Your task to perform on an android device: toggle notification dots Image 0: 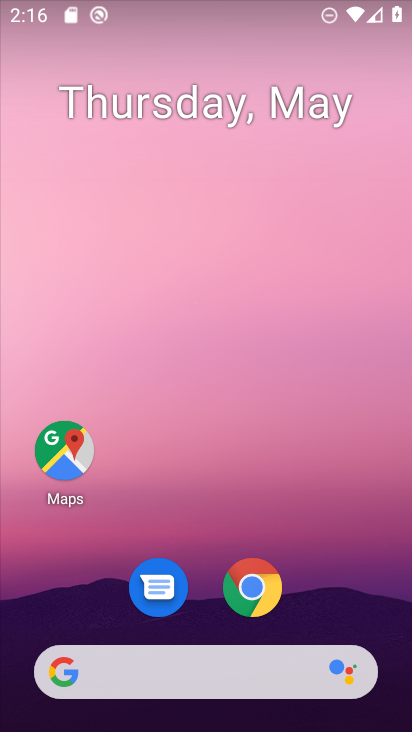
Step 0: drag from (331, 568) to (328, 145)
Your task to perform on an android device: toggle notification dots Image 1: 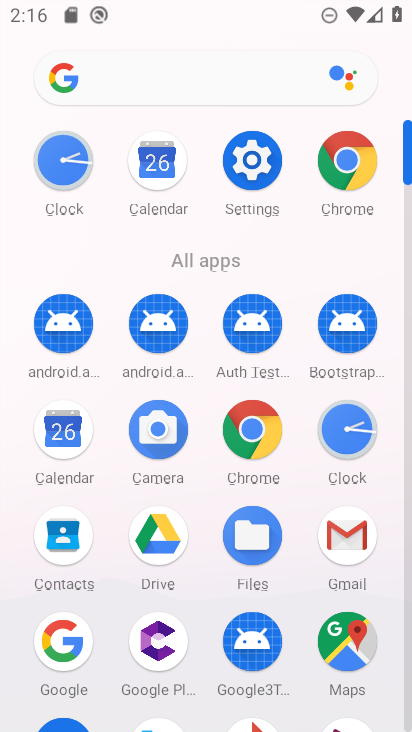
Step 1: click (260, 147)
Your task to perform on an android device: toggle notification dots Image 2: 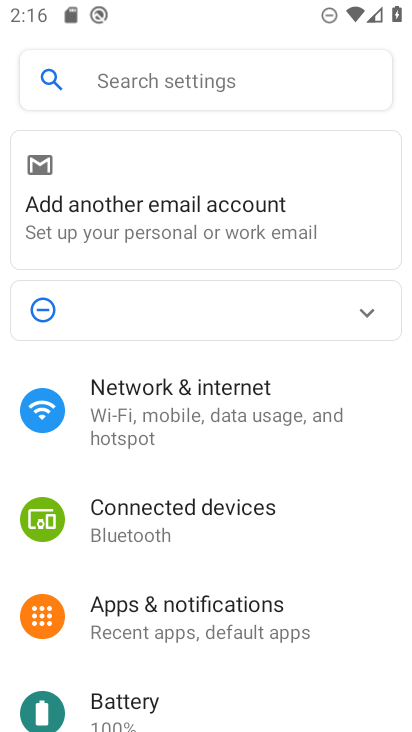
Step 2: click (214, 621)
Your task to perform on an android device: toggle notification dots Image 3: 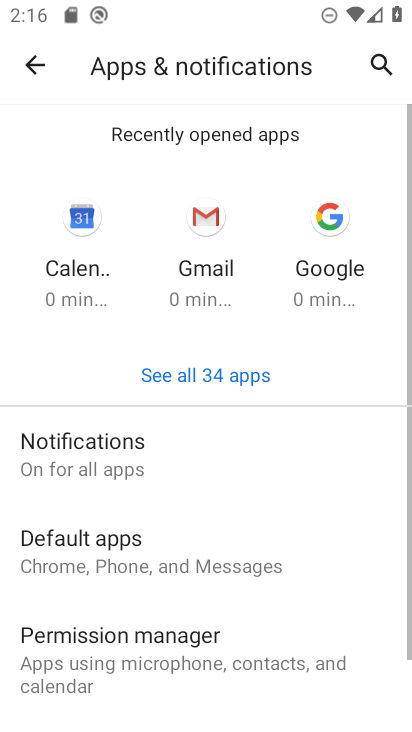
Step 3: click (123, 450)
Your task to perform on an android device: toggle notification dots Image 4: 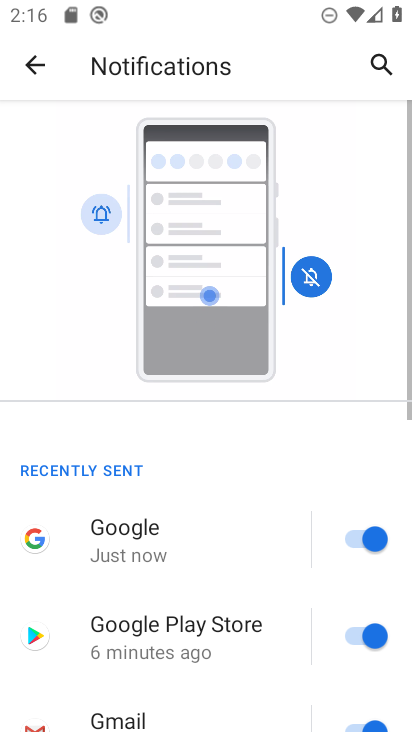
Step 4: drag from (242, 494) to (299, 19)
Your task to perform on an android device: toggle notification dots Image 5: 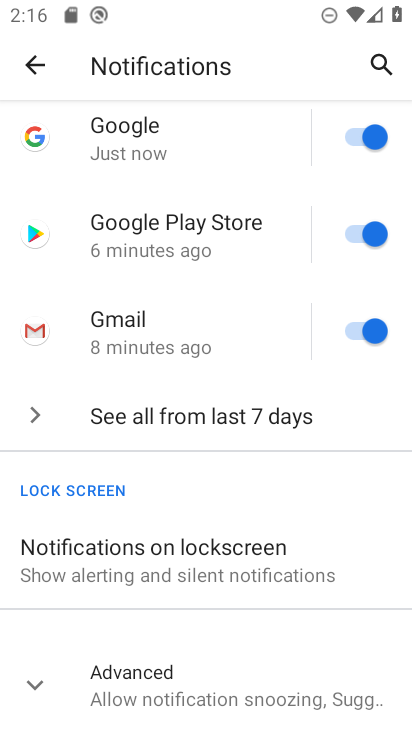
Step 5: click (206, 660)
Your task to perform on an android device: toggle notification dots Image 6: 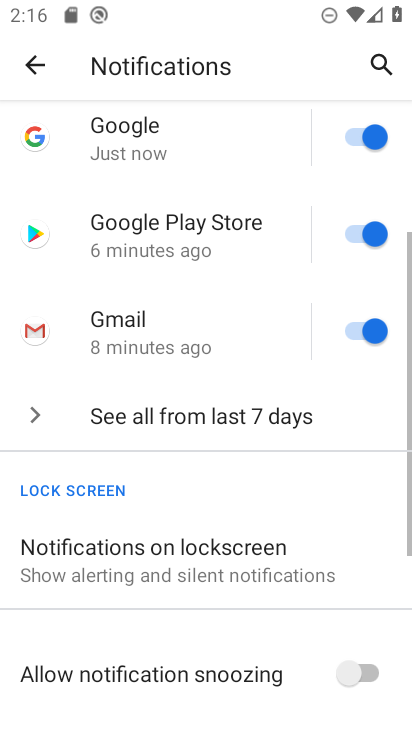
Step 6: drag from (218, 638) to (262, 95)
Your task to perform on an android device: toggle notification dots Image 7: 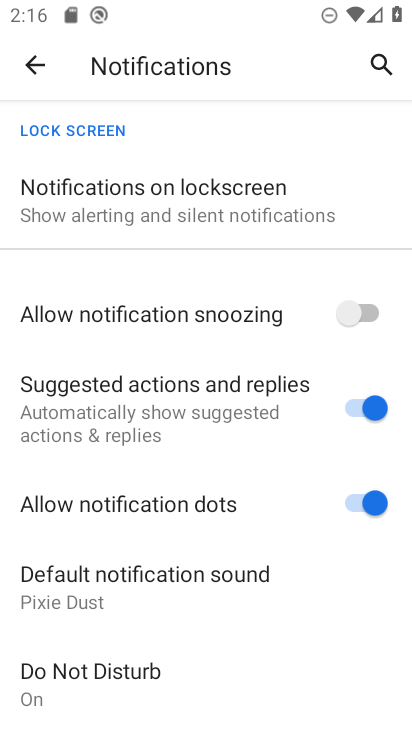
Step 7: click (374, 506)
Your task to perform on an android device: toggle notification dots Image 8: 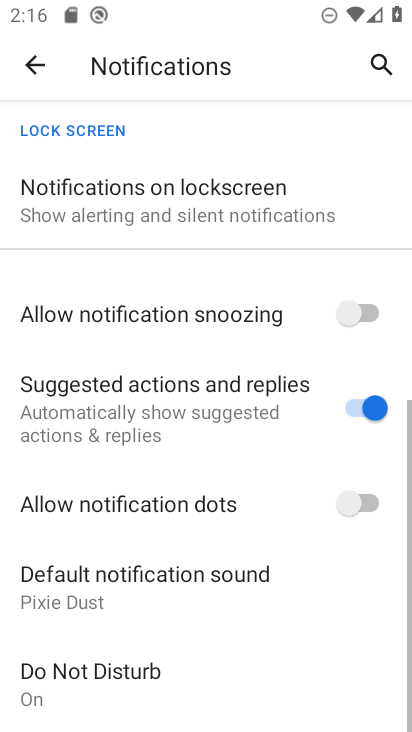
Step 8: task complete